Your task to perform on an android device: Show the shopping cart on target. Search for "razer blackwidow" on target, select the first entry, add it to the cart, then select checkout. Image 0: 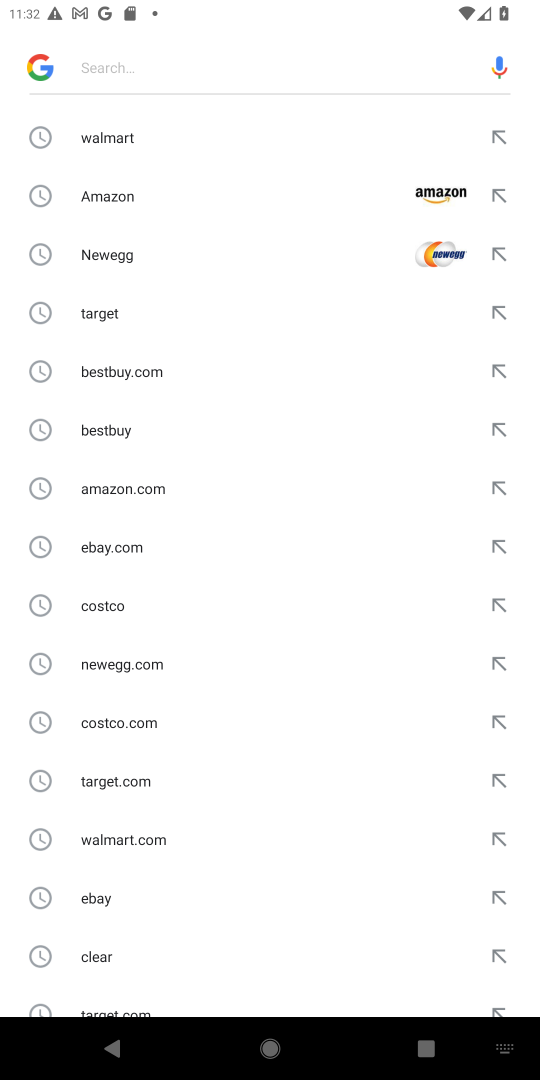
Step 0: press home button
Your task to perform on an android device: Show the shopping cart on target. Search for "razer blackwidow" on target, select the first entry, add it to the cart, then select checkout. Image 1: 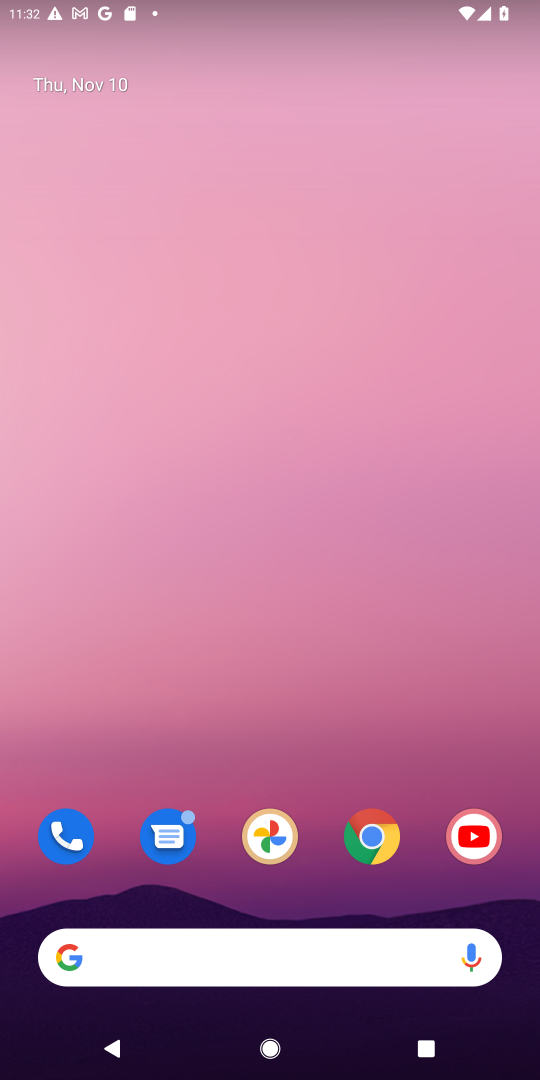
Step 1: click (239, 945)
Your task to perform on an android device: Show the shopping cart on target. Search for "razer blackwidow" on target, select the first entry, add it to the cart, then select checkout. Image 2: 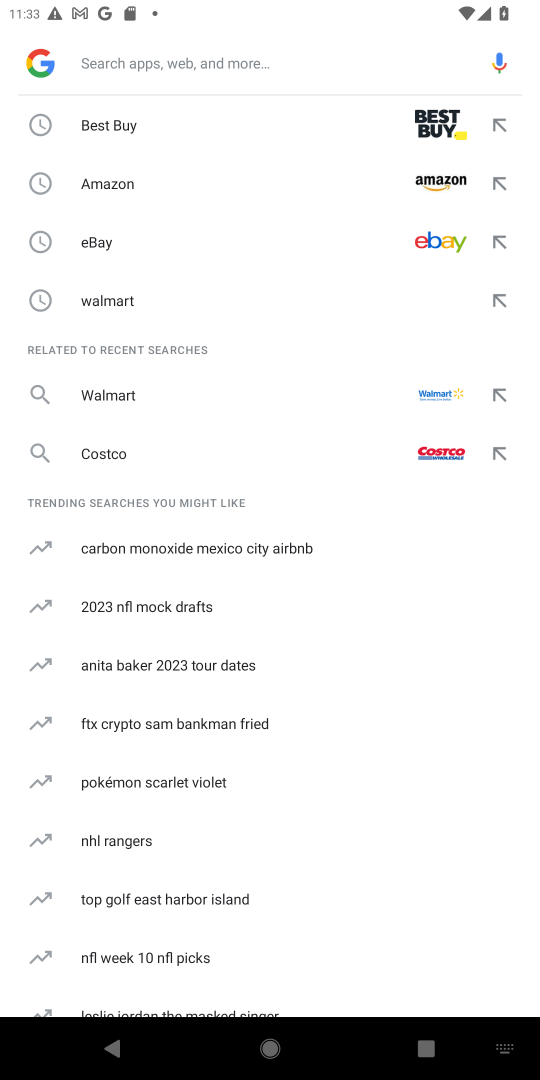
Step 2: type "target"
Your task to perform on an android device: Show the shopping cart on target. Search for "razer blackwidow" on target, select the first entry, add it to the cart, then select checkout. Image 3: 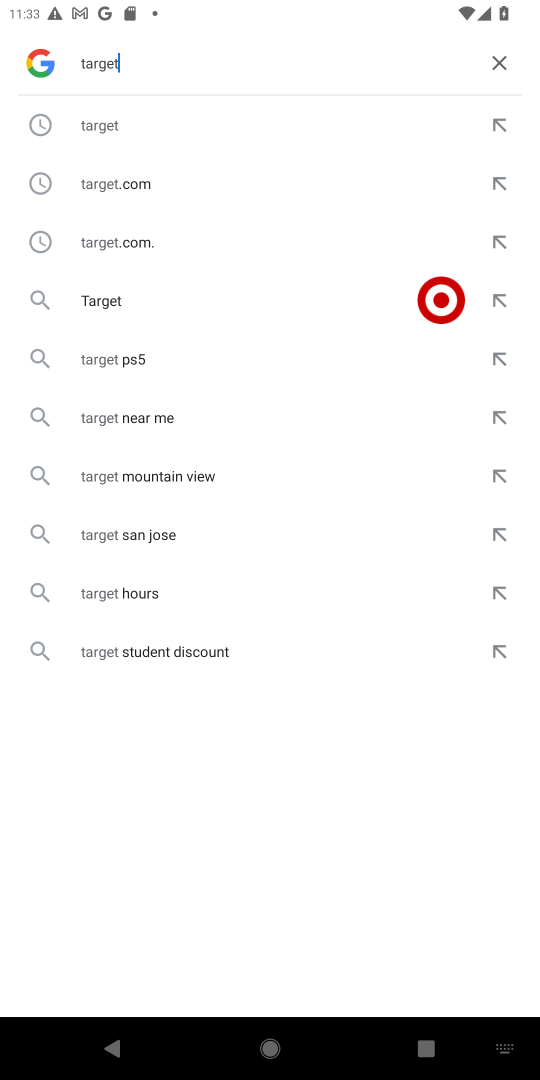
Step 3: click (181, 306)
Your task to perform on an android device: Show the shopping cart on target. Search for "razer blackwidow" on target, select the first entry, add it to the cart, then select checkout. Image 4: 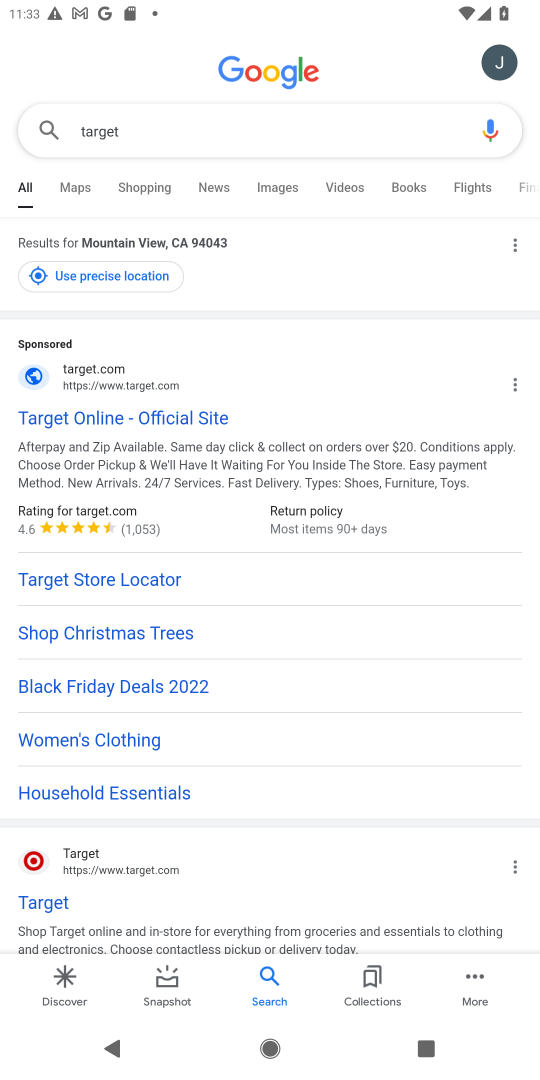
Step 4: click (86, 370)
Your task to perform on an android device: Show the shopping cart on target. Search for "razer blackwidow" on target, select the first entry, add it to the cart, then select checkout. Image 5: 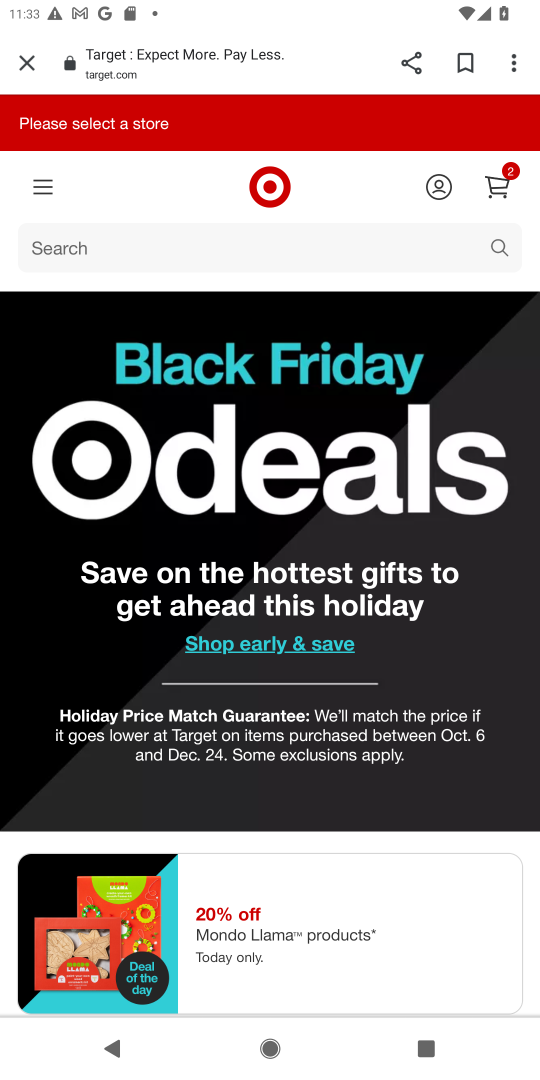
Step 5: click (217, 245)
Your task to perform on an android device: Show the shopping cart on target. Search for "razer blackwidow" on target, select the first entry, add it to the cart, then select checkout. Image 6: 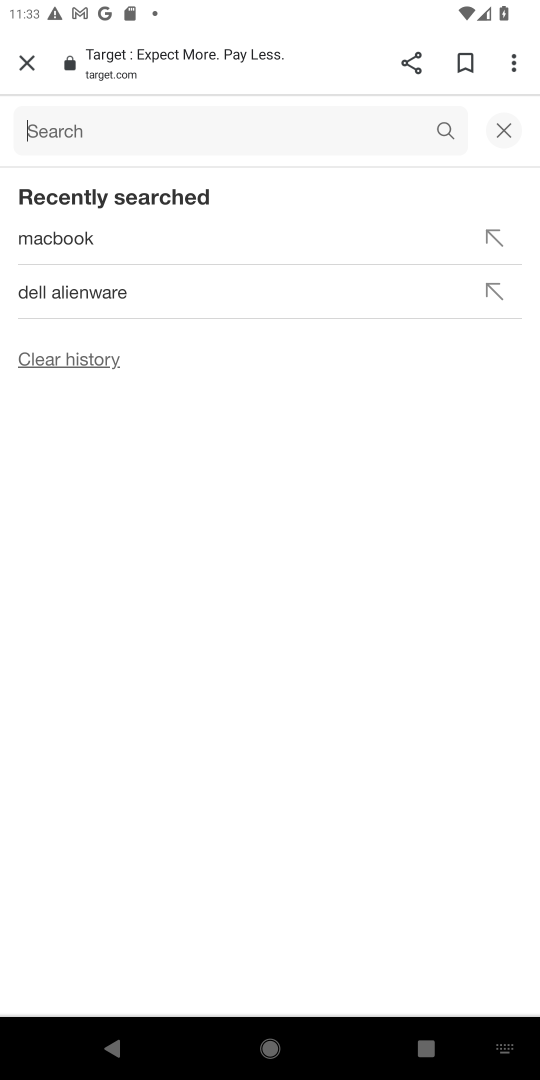
Step 6: type "razer blackwidow"
Your task to perform on an android device: Show the shopping cart on target. Search for "razer blackwidow" on target, select the first entry, add it to the cart, then select checkout. Image 7: 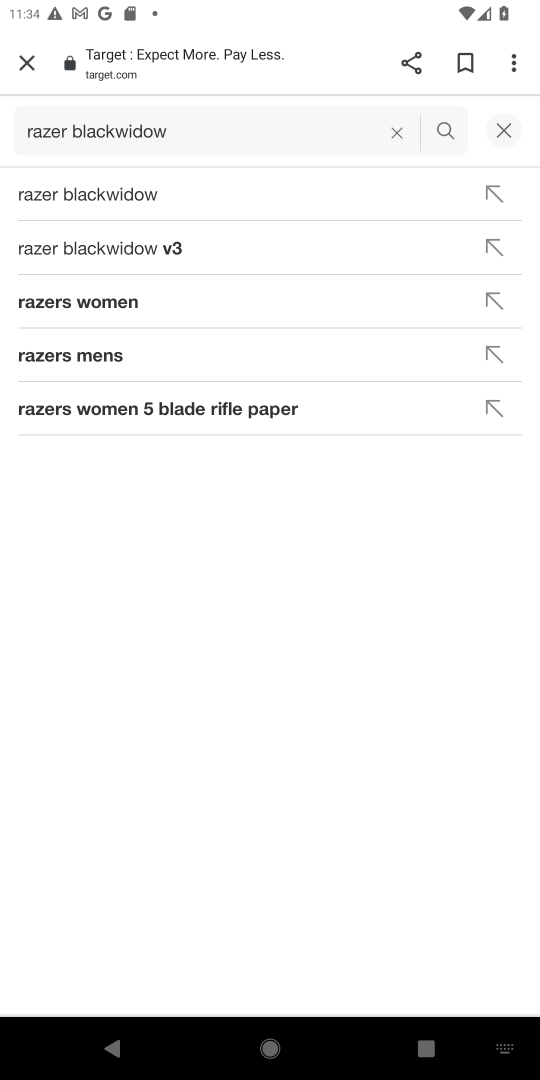
Step 7: click (138, 198)
Your task to perform on an android device: Show the shopping cart on target. Search for "razer blackwidow" on target, select the first entry, add it to the cart, then select checkout. Image 8: 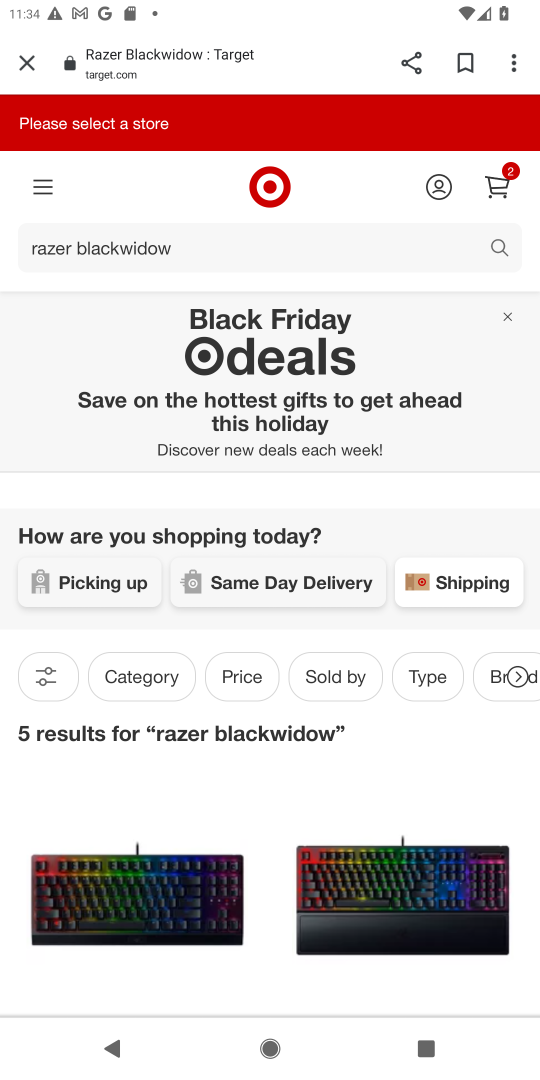
Step 8: click (226, 542)
Your task to perform on an android device: Show the shopping cart on target. Search for "razer blackwidow" on target, select the first entry, add it to the cart, then select checkout. Image 9: 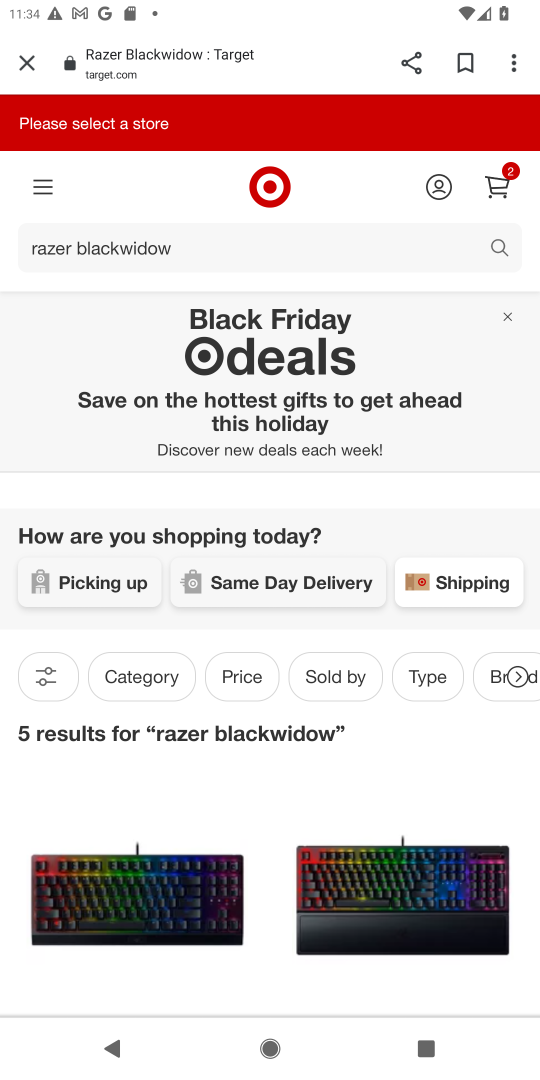
Step 9: drag from (264, 784) to (269, 327)
Your task to perform on an android device: Show the shopping cart on target. Search for "razer blackwidow" on target, select the first entry, add it to the cart, then select checkout. Image 10: 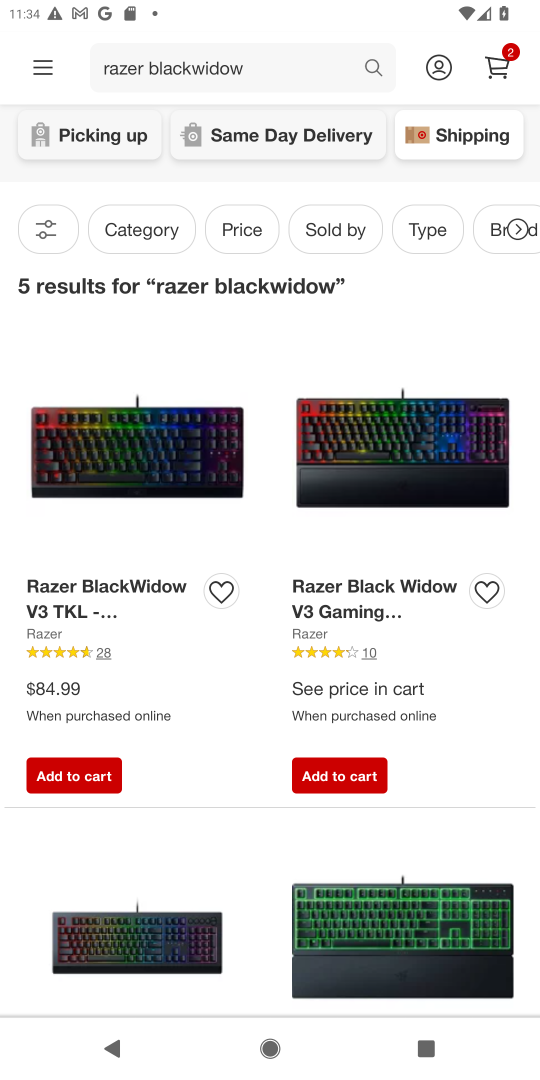
Step 10: click (113, 578)
Your task to perform on an android device: Show the shopping cart on target. Search for "razer blackwidow" on target, select the first entry, add it to the cart, then select checkout. Image 11: 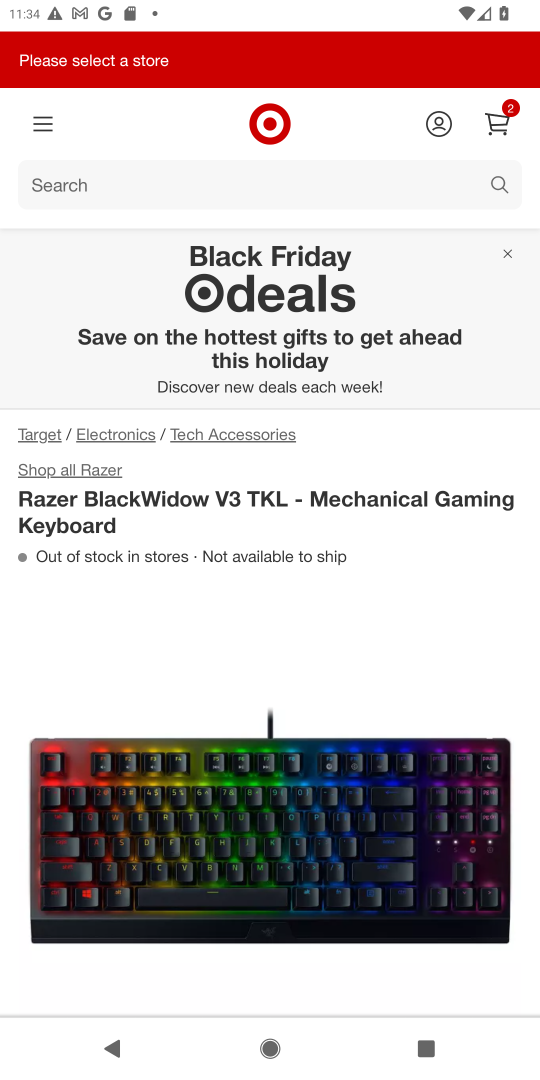
Step 11: drag from (85, 658) to (141, 356)
Your task to perform on an android device: Show the shopping cart on target. Search for "razer blackwidow" on target, select the first entry, add it to the cart, then select checkout. Image 12: 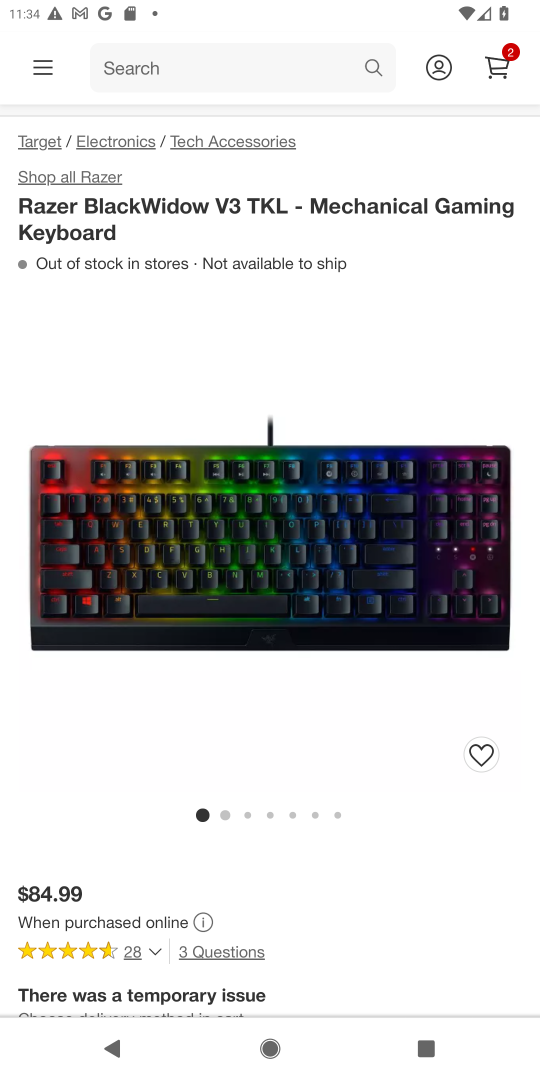
Step 12: drag from (237, 876) to (303, 143)
Your task to perform on an android device: Show the shopping cart on target. Search for "razer blackwidow" on target, select the first entry, add it to the cart, then select checkout. Image 13: 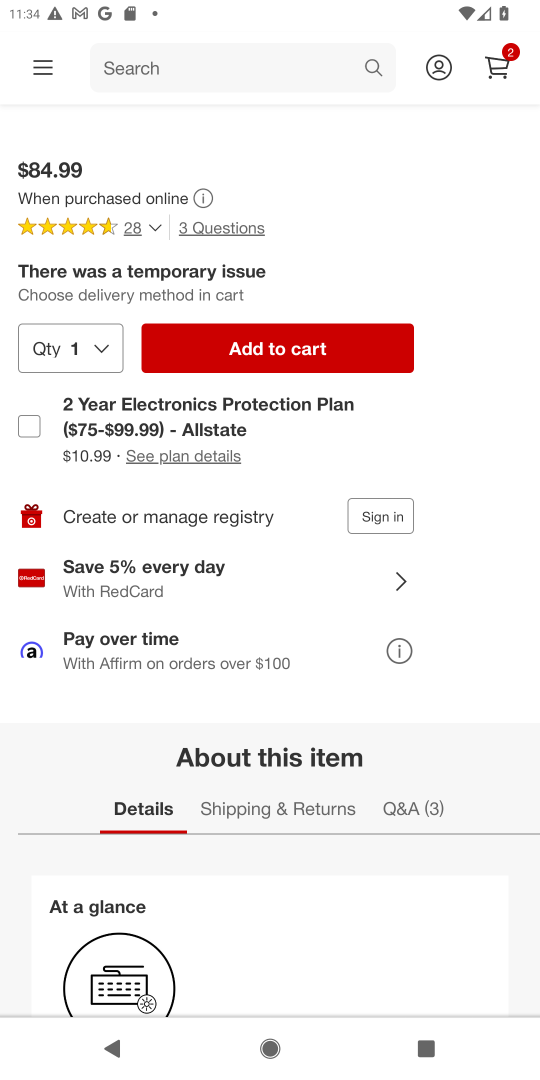
Step 13: click (253, 352)
Your task to perform on an android device: Show the shopping cart on target. Search for "razer blackwidow" on target, select the first entry, add it to the cart, then select checkout. Image 14: 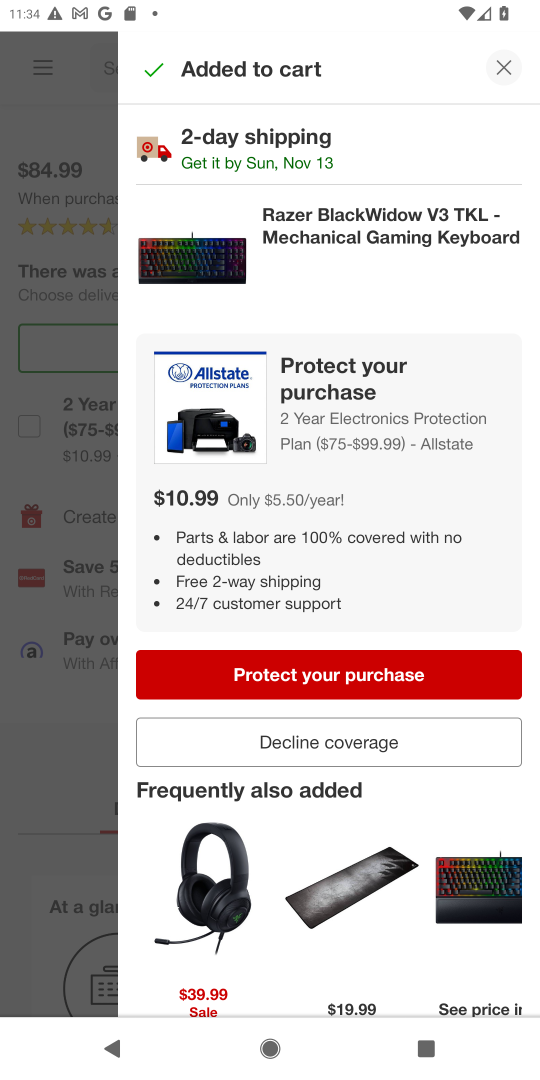
Step 14: click (502, 70)
Your task to perform on an android device: Show the shopping cart on target. Search for "razer blackwidow" on target, select the first entry, add it to the cart, then select checkout. Image 15: 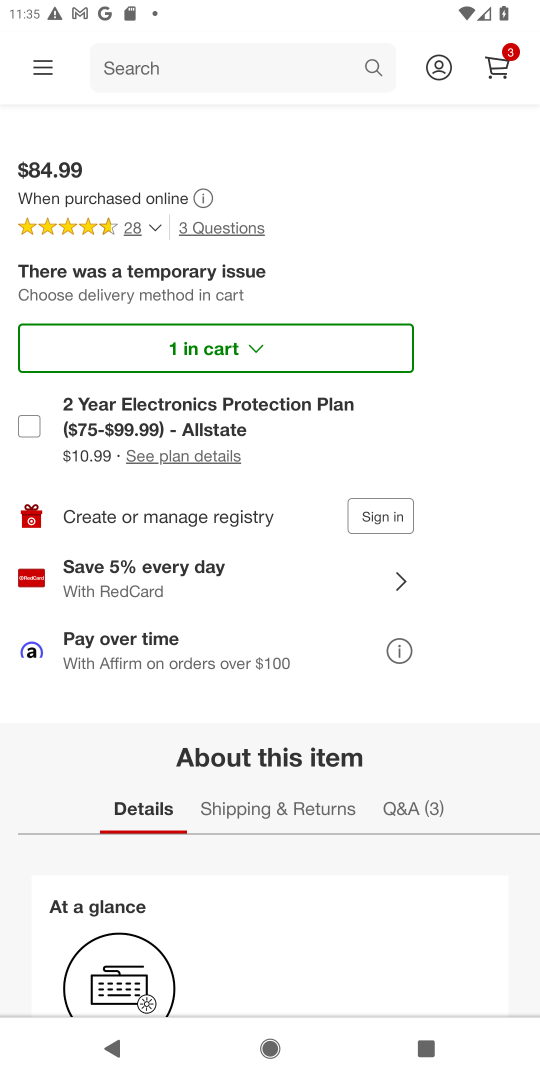
Step 15: click (502, 70)
Your task to perform on an android device: Show the shopping cart on target. Search for "razer blackwidow" on target, select the first entry, add it to the cart, then select checkout. Image 16: 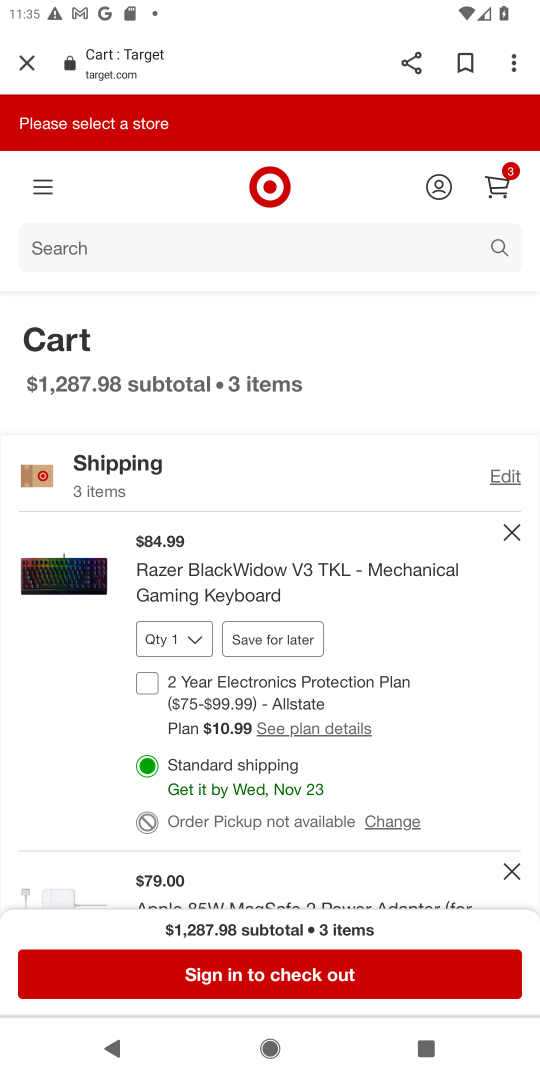
Step 16: click (253, 981)
Your task to perform on an android device: Show the shopping cart on target. Search for "razer blackwidow" on target, select the first entry, add it to the cart, then select checkout. Image 17: 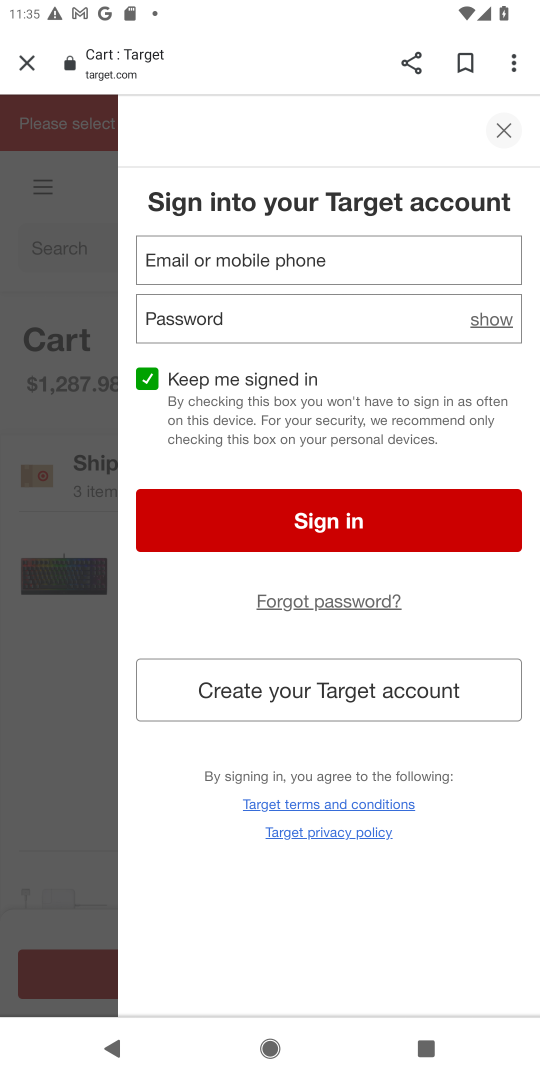
Step 17: click (506, 125)
Your task to perform on an android device: Show the shopping cart on target. Search for "razer blackwidow" on target, select the first entry, add it to the cart, then select checkout. Image 18: 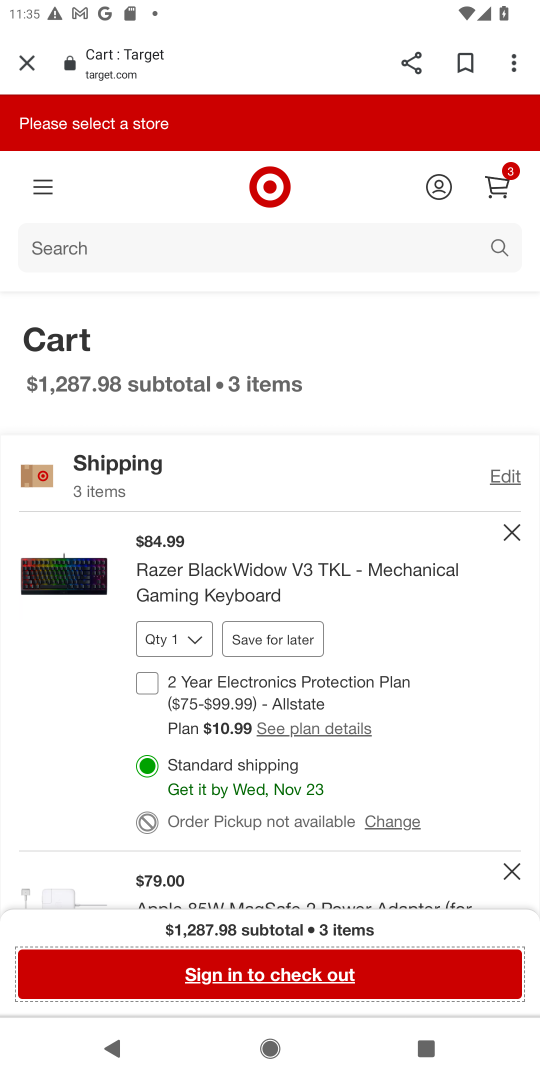
Step 18: click (514, 175)
Your task to perform on an android device: Show the shopping cart on target. Search for "razer blackwidow" on target, select the first entry, add it to the cart, then select checkout. Image 19: 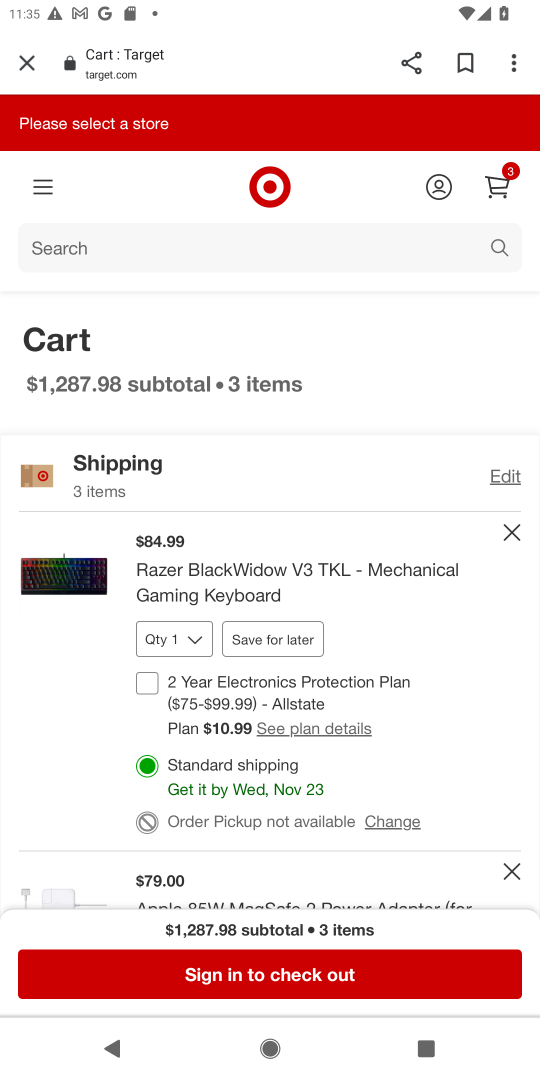
Step 19: click (263, 968)
Your task to perform on an android device: Show the shopping cart on target. Search for "razer blackwidow" on target, select the first entry, add it to the cart, then select checkout. Image 20: 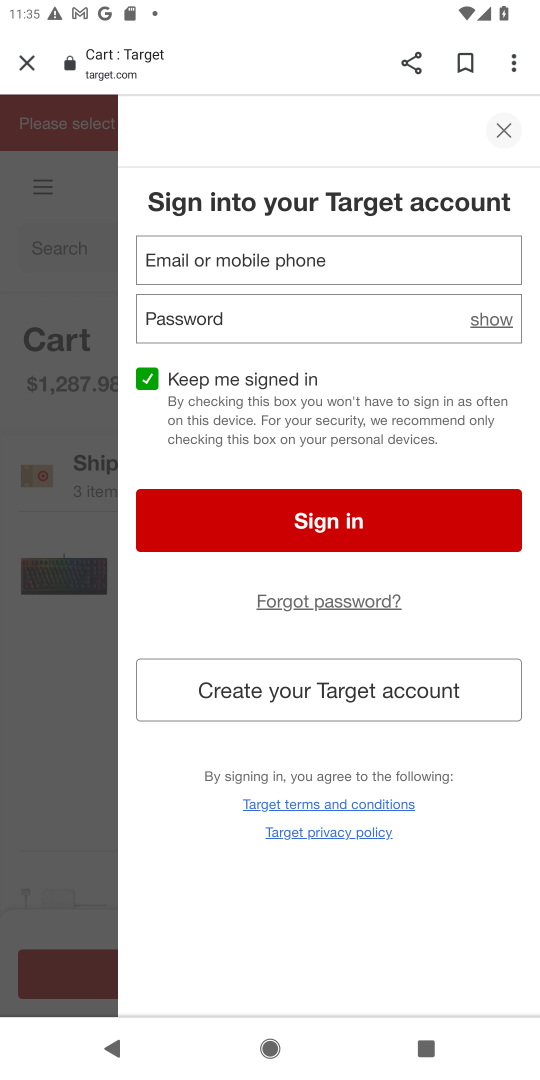
Step 20: click (507, 122)
Your task to perform on an android device: Show the shopping cart on target. Search for "razer blackwidow" on target, select the first entry, add it to the cart, then select checkout. Image 21: 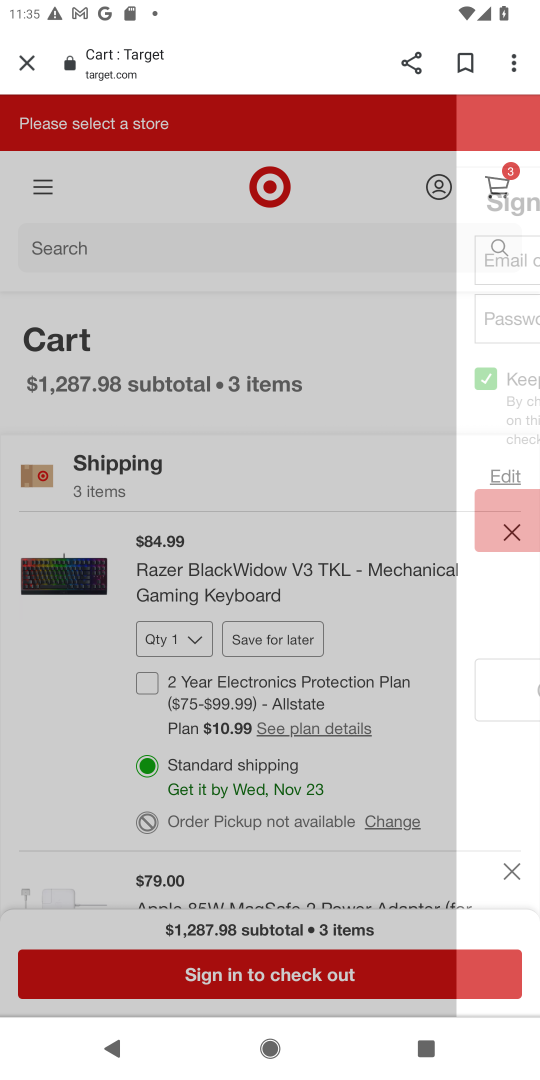
Step 21: task complete